Your task to perform on an android device: turn on the 12-hour format for clock Image 0: 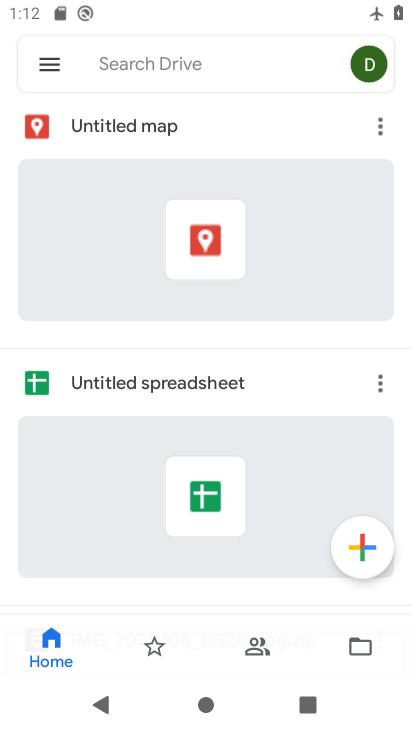
Step 0: press home button
Your task to perform on an android device: turn on the 12-hour format for clock Image 1: 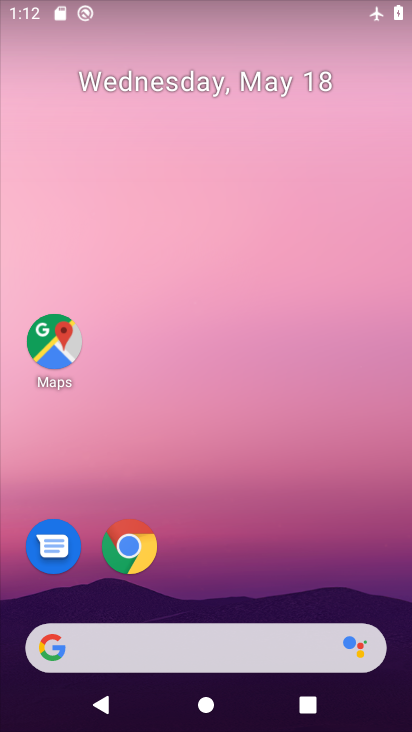
Step 1: drag from (231, 591) to (255, 181)
Your task to perform on an android device: turn on the 12-hour format for clock Image 2: 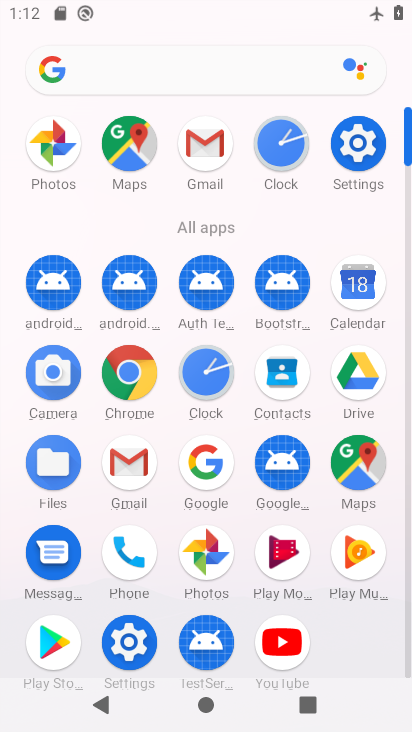
Step 2: click (280, 145)
Your task to perform on an android device: turn on the 12-hour format for clock Image 3: 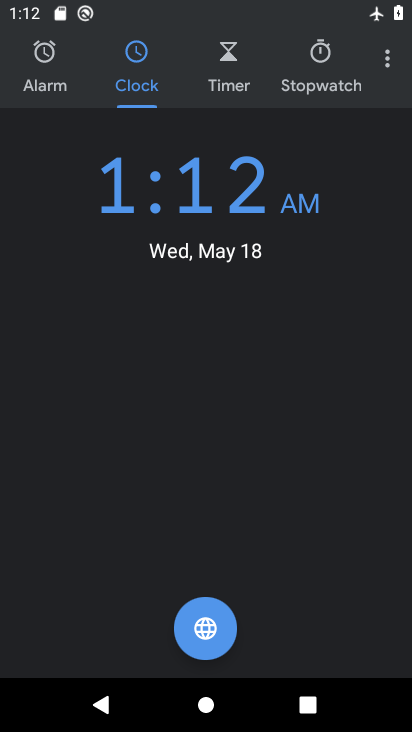
Step 3: click (386, 61)
Your task to perform on an android device: turn on the 12-hour format for clock Image 4: 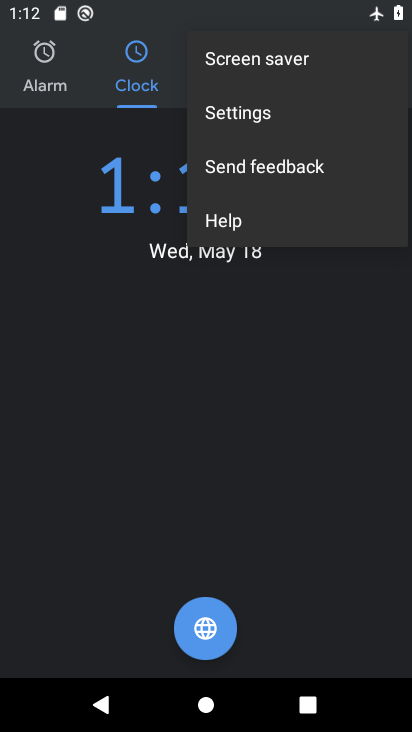
Step 4: click (299, 111)
Your task to perform on an android device: turn on the 12-hour format for clock Image 5: 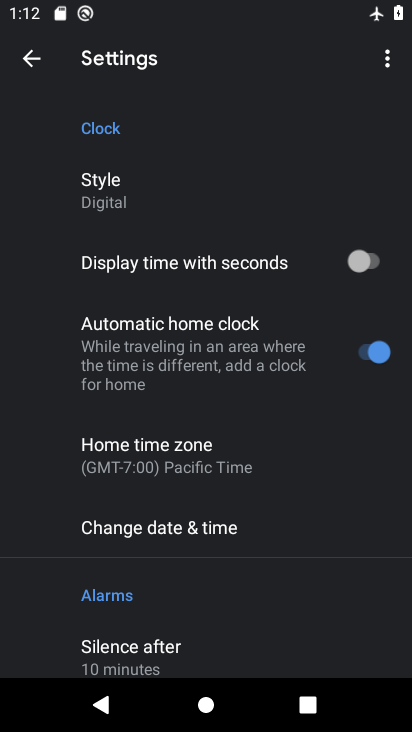
Step 5: click (220, 536)
Your task to perform on an android device: turn on the 12-hour format for clock Image 6: 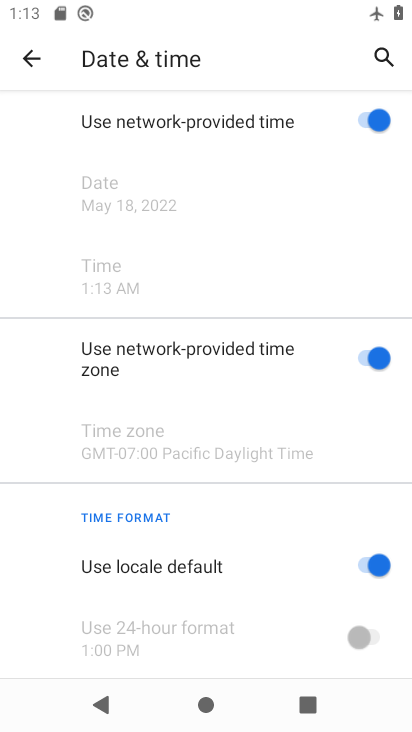
Step 6: task complete